Your task to perform on an android device: Is it going to rain this weekend? Image 0: 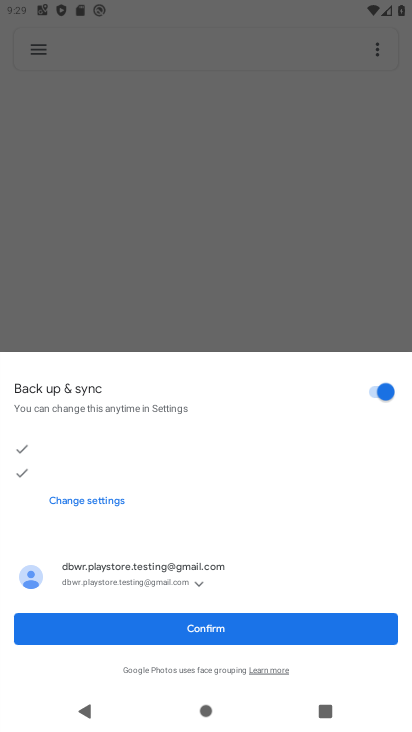
Step 0: press home button
Your task to perform on an android device: Is it going to rain this weekend? Image 1: 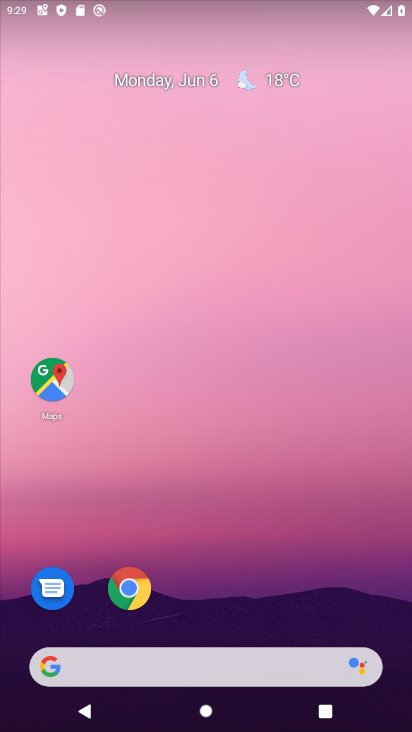
Step 1: click (197, 658)
Your task to perform on an android device: Is it going to rain this weekend? Image 2: 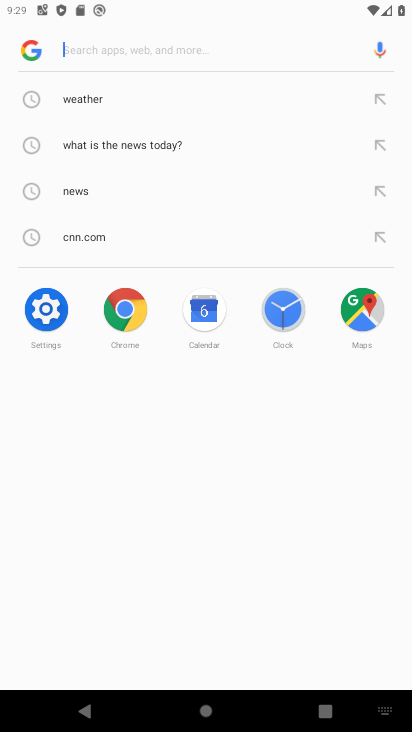
Step 2: type "is it going to rain this weekend"
Your task to perform on an android device: Is it going to rain this weekend? Image 3: 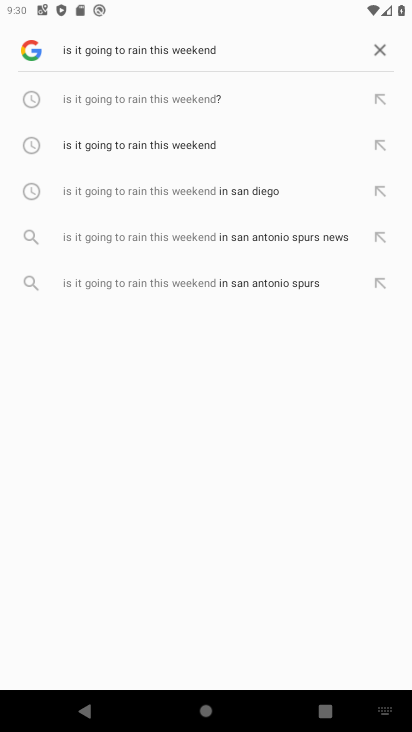
Step 3: click (164, 90)
Your task to perform on an android device: Is it going to rain this weekend? Image 4: 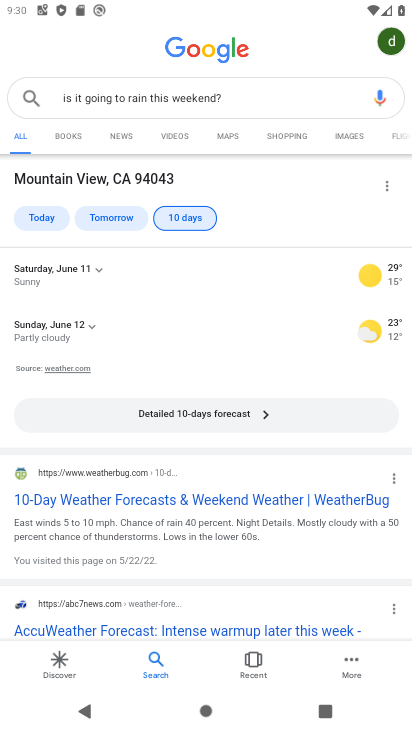
Step 4: task complete